Your task to perform on an android device: add a contact Image 0: 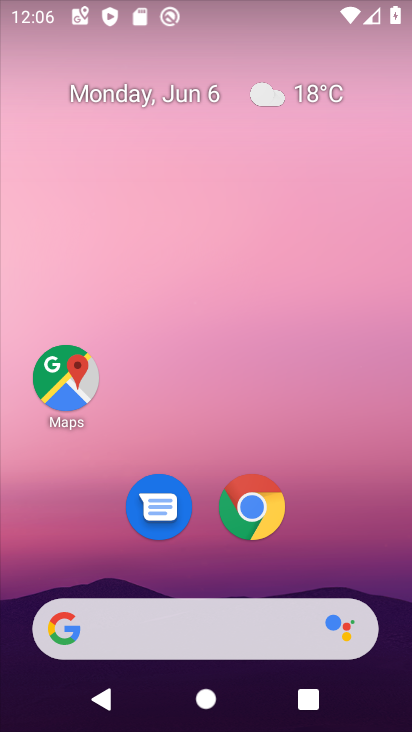
Step 0: drag from (400, 602) to (285, 126)
Your task to perform on an android device: add a contact Image 1: 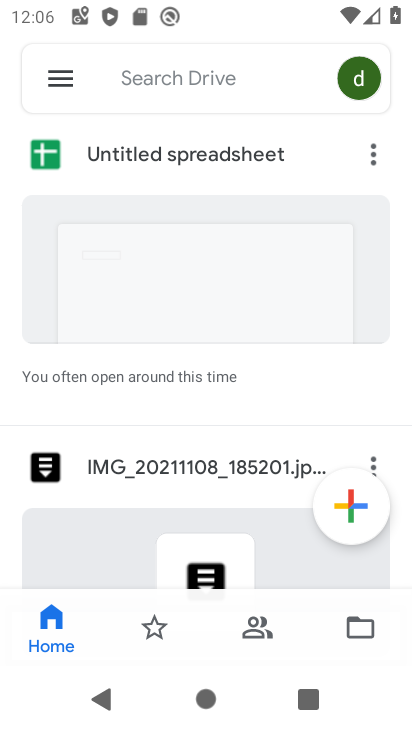
Step 1: press home button
Your task to perform on an android device: add a contact Image 2: 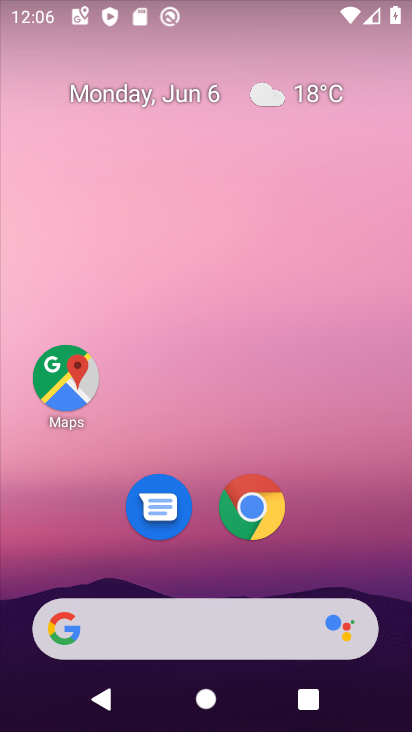
Step 2: drag from (380, 566) to (322, 176)
Your task to perform on an android device: add a contact Image 3: 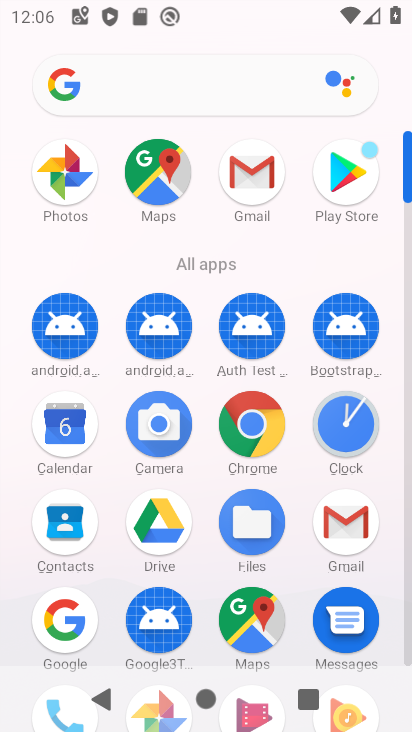
Step 3: click (409, 653)
Your task to perform on an android device: add a contact Image 4: 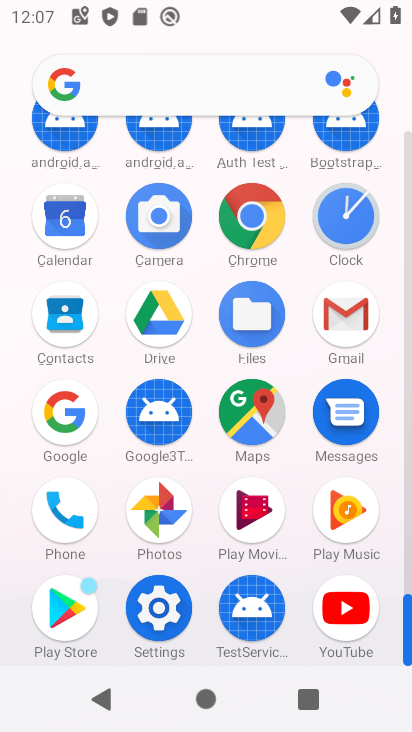
Step 4: click (79, 321)
Your task to perform on an android device: add a contact Image 5: 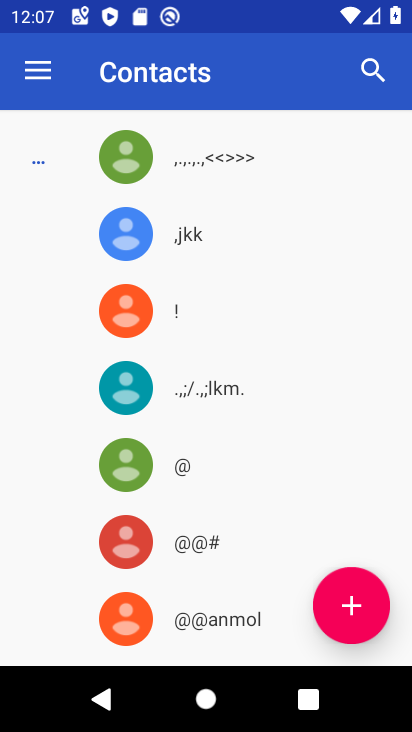
Step 5: click (353, 603)
Your task to perform on an android device: add a contact Image 6: 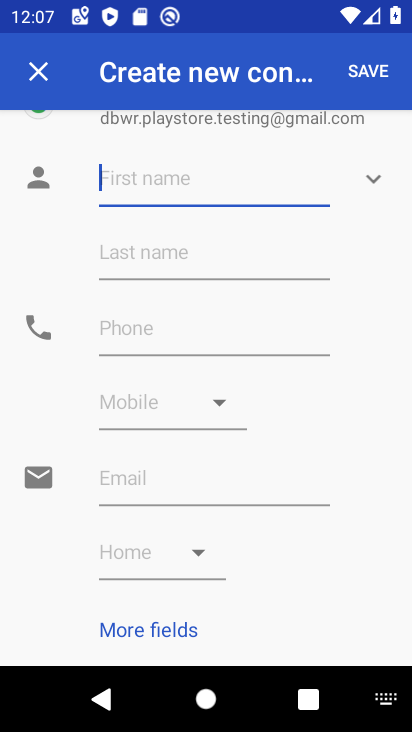
Step 6: click (243, 195)
Your task to perform on an android device: add a contact Image 7: 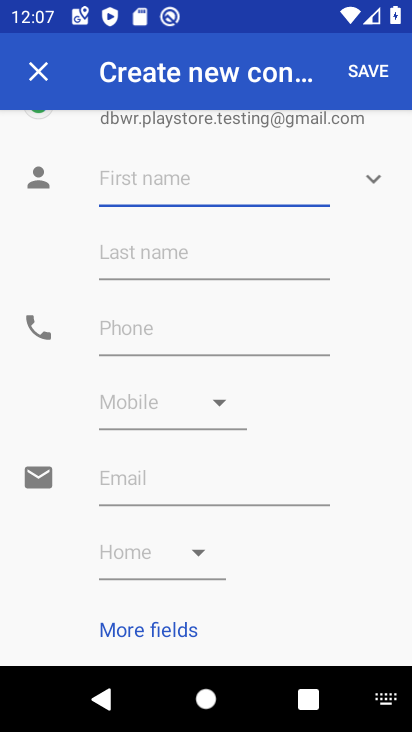
Step 7: type "vbvjhvjhh"
Your task to perform on an android device: add a contact Image 8: 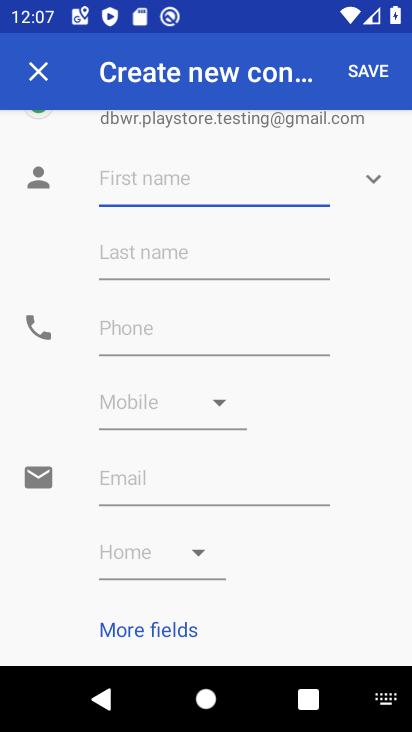
Step 8: click (270, 343)
Your task to perform on an android device: add a contact Image 9: 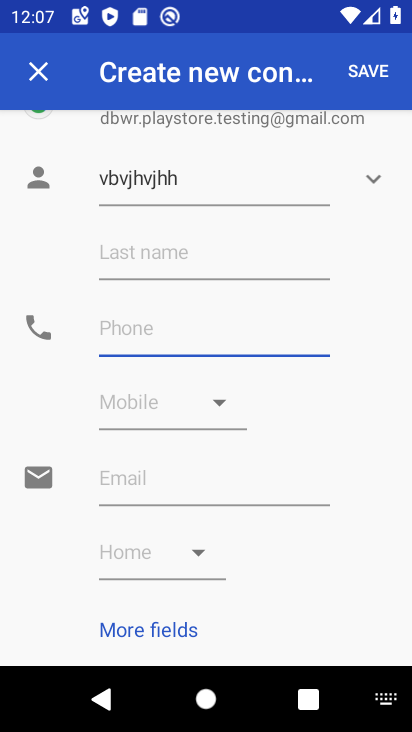
Step 9: type "698698789"
Your task to perform on an android device: add a contact Image 10: 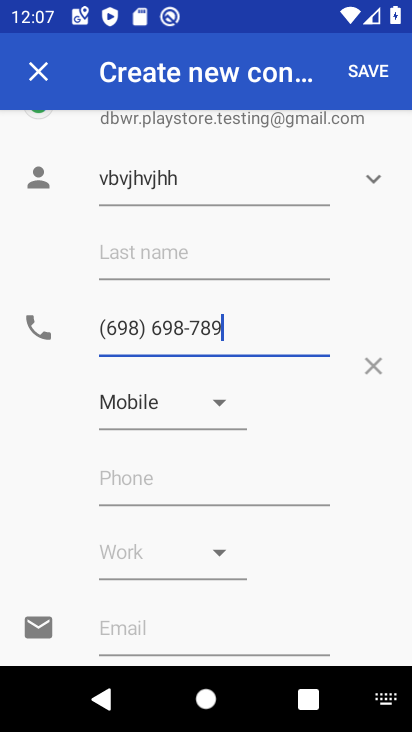
Step 10: click (370, 69)
Your task to perform on an android device: add a contact Image 11: 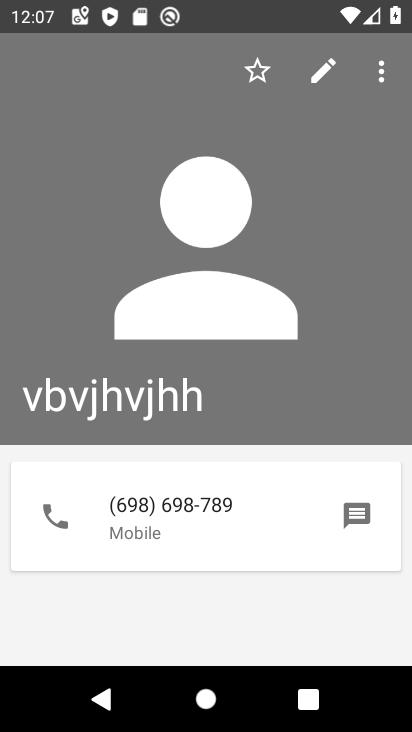
Step 11: task complete